Your task to perform on an android device: turn on notifications settings in the gmail app Image 0: 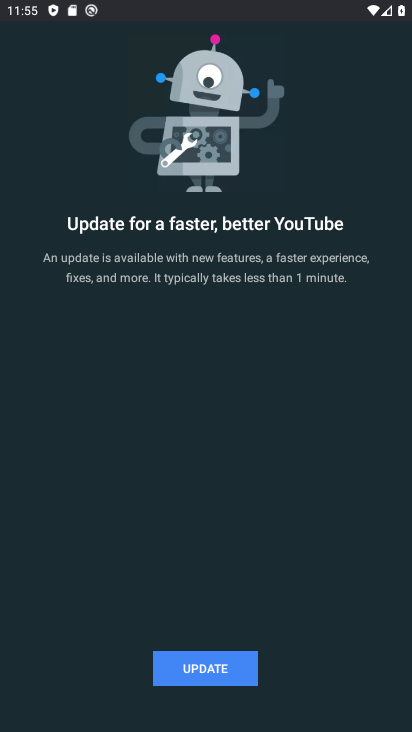
Step 0: press home button
Your task to perform on an android device: turn on notifications settings in the gmail app Image 1: 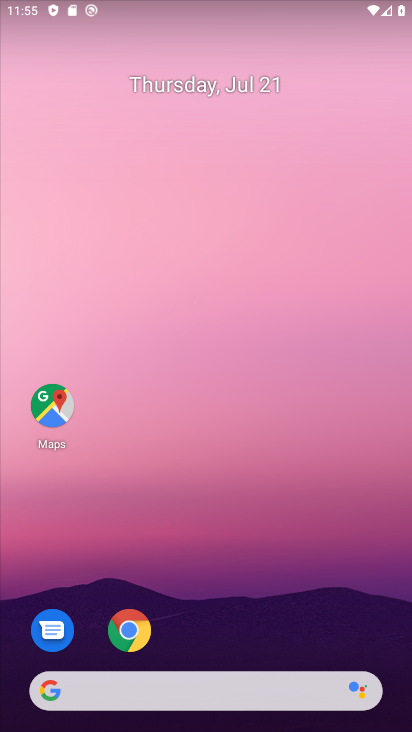
Step 1: drag from (316, 641) to (193, 171)
Your task to perform on an android device: turn on notifications settings in the gmail app Image 2: 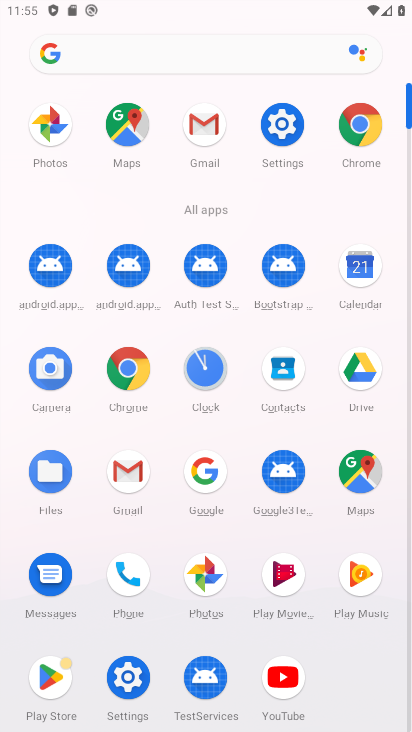
Step 2: click (220, 125)
Your task to perform on an android device: turn on notifications settings in the gmail app Image 3: 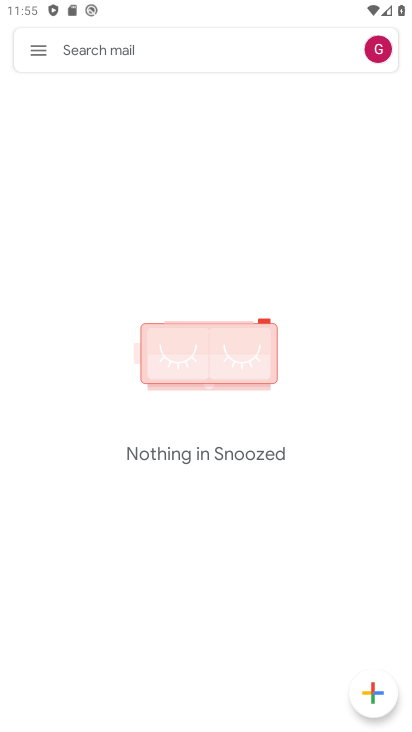
Step 3: click (29, 45)
Your task to perform on an android device: turn on notifications settings in the gmail app Image 4: 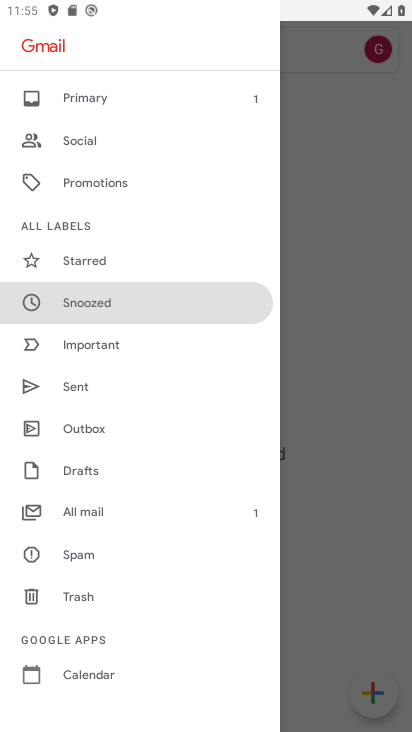
Step 4: drag from (122, 658) to (102, 398)
Your task to perform on an android device: turn on notifications settings in the gmail app Image 5: 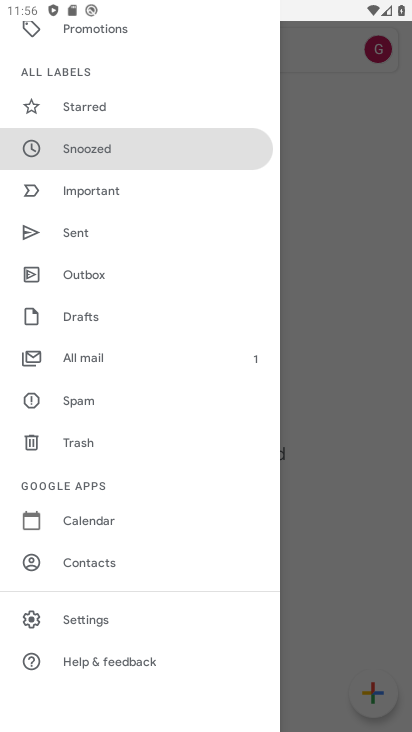
Step 5: click (130, 614)
Your task to perform on an android device: turn on notifications settings in the gmail app Image 6: 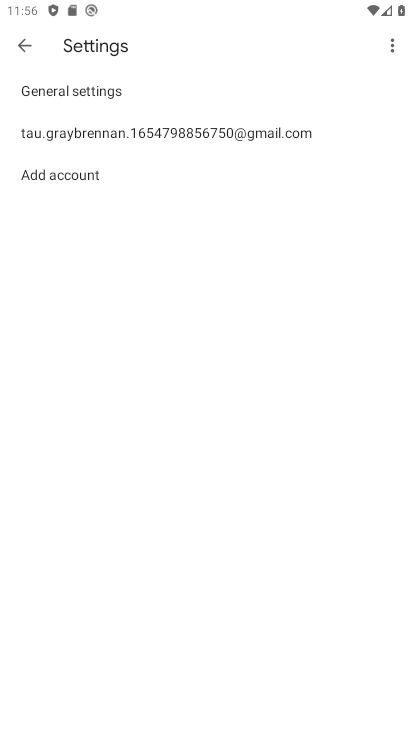
Step 6: click (175, 127)
Your task to perform on an android device: turn on notifications settings in the gmail app Image 7: 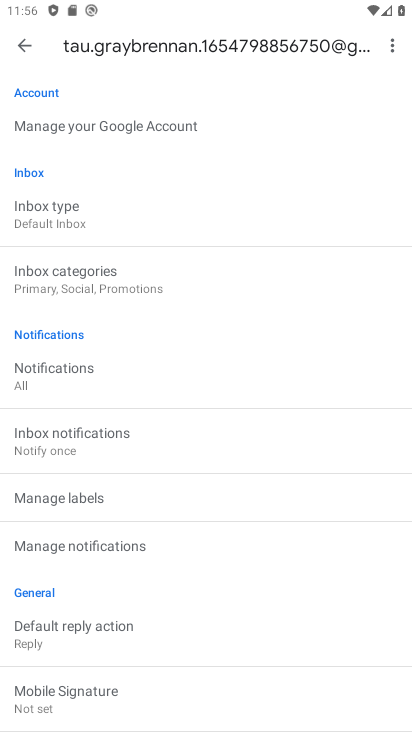
Step 7: drag from (248, 643) to (228, 522)
Your task to perform on an android device: turn on notifications settings in the gmail app Image 8: 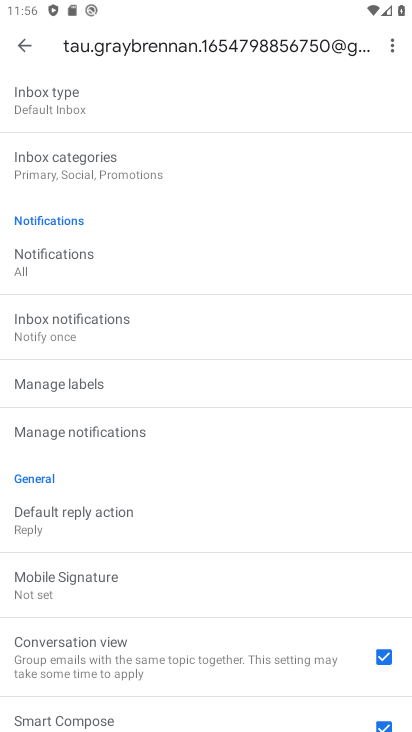
Step 8: click (183, 440)
Your task to perform on an android device: turn on notifications settings in the gmail app Image 9: 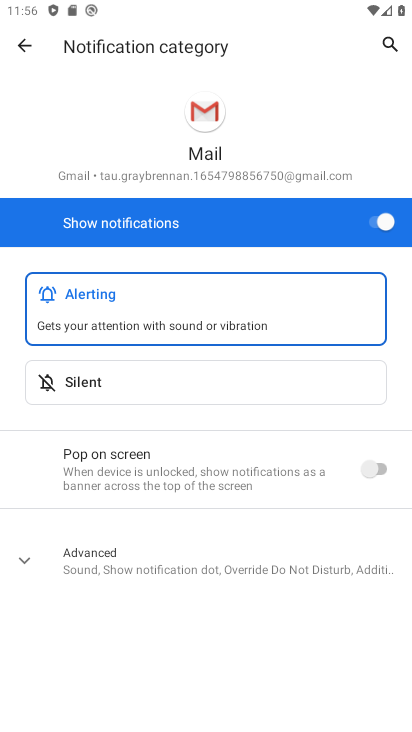
Step 9: task complete